Your task to perform on an android device: allow cookies in the chrome app Image 0: 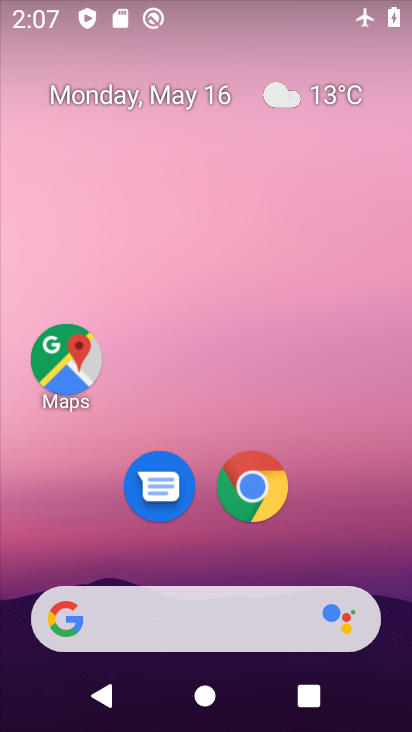
Step 0: drag from (372, 529) to (342, 209)
Your task to perform on an android device: allow cookies in the chrome app Image 1: 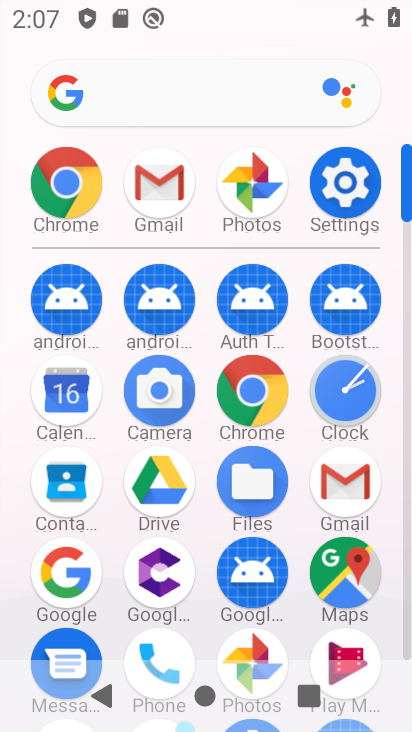
Step 1: click (271, 394)
Your task to perform on an android device: allow cookies in the chrome app Image 2: 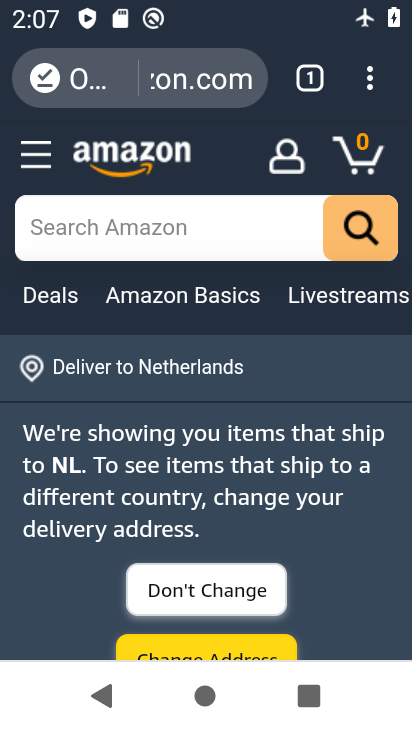
Step 2: drag from (383, 72) to (177, 531)
Your task to perform on an android device: allow cookies in the chrome app Image 3: 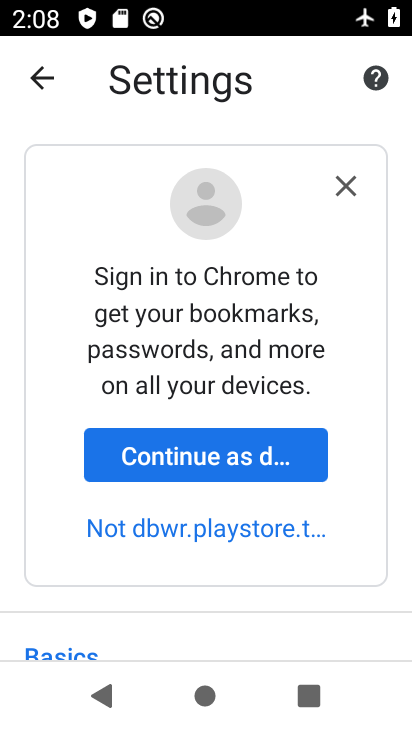
Step 3: drag from (282, 600) to (263, 124)
Your task to perform on an android device: allow cookies in the chrome app Image 4: 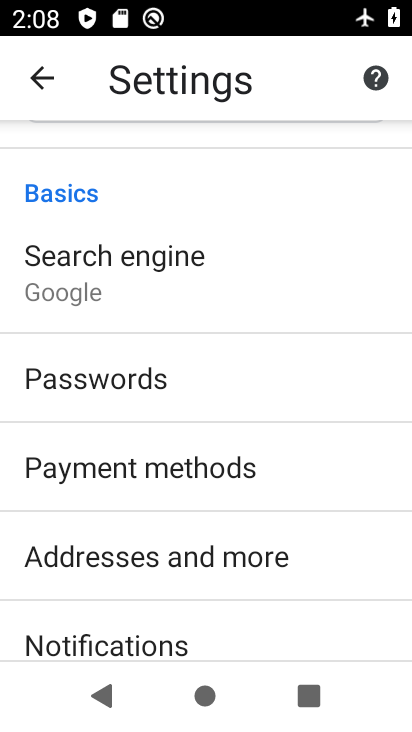
Step 4: drag from (199, 533) to (243, 153)
Your task to perform on an android device: allow cookies in the chrome app Image 5: 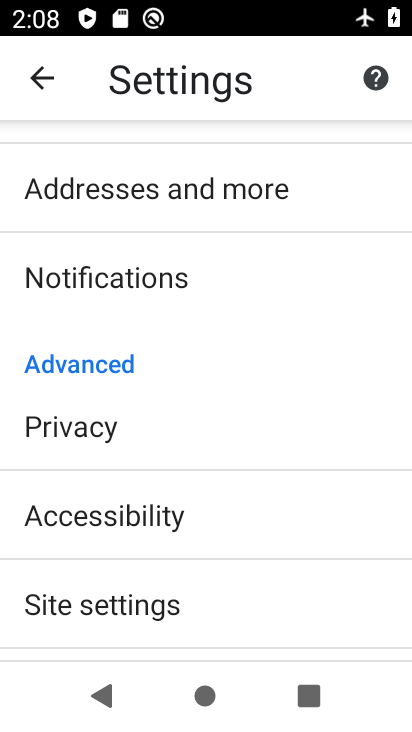
Step 5: click (165, 605)
Your task to perform on an android device: allow cookies in the chrome app Image 6: 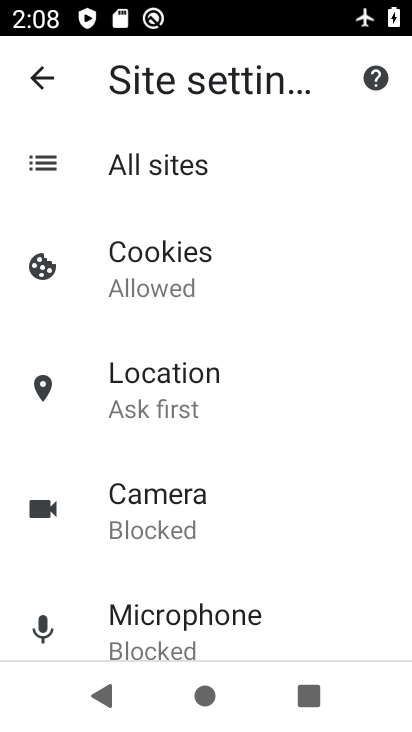
Step 6: click (184, 283)
Your task to perform on an android device: allow cookies in the chrome app Image 7: 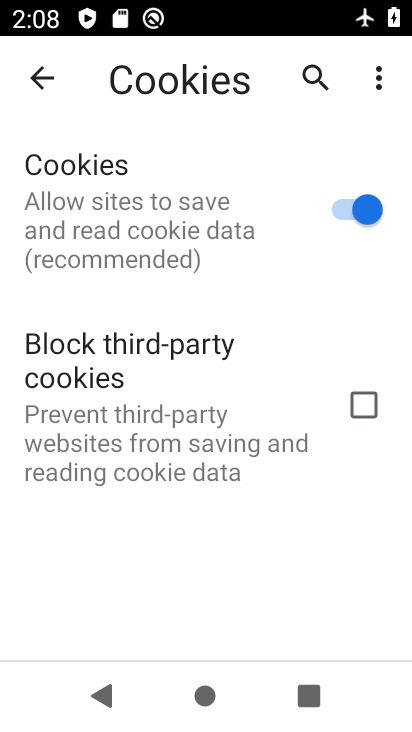
Step 7: task complete